Your task to perform on an android device: toggle wifi Image 0: 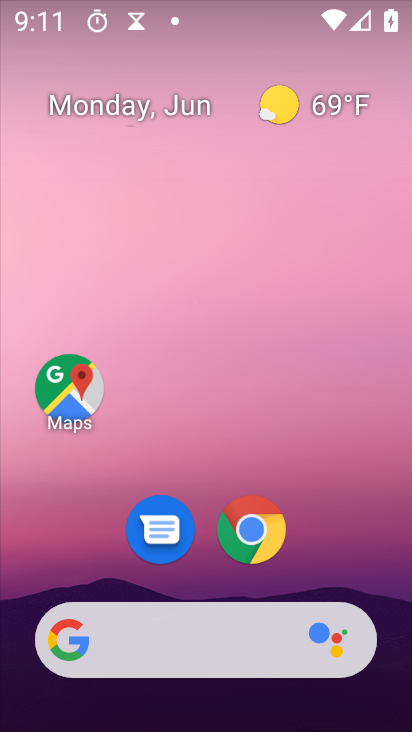
Step 0: drag from (350, 513) to (223, 68)
Your task to perform on an android device: toggle wifi Image 1: 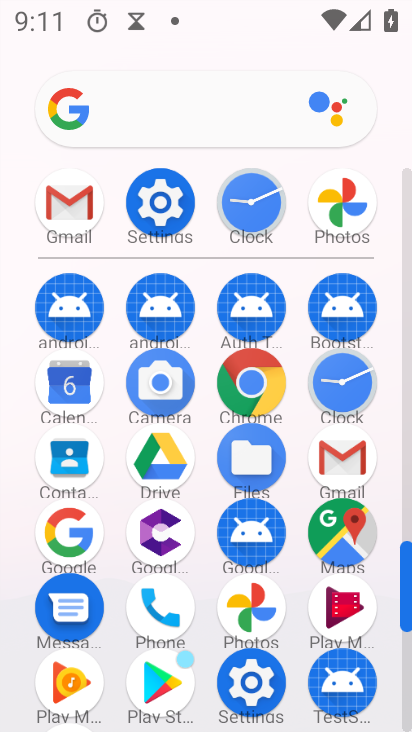
Step 1: click (148, 206)
Your task to perform on an android device: toggle wifi Image 2: 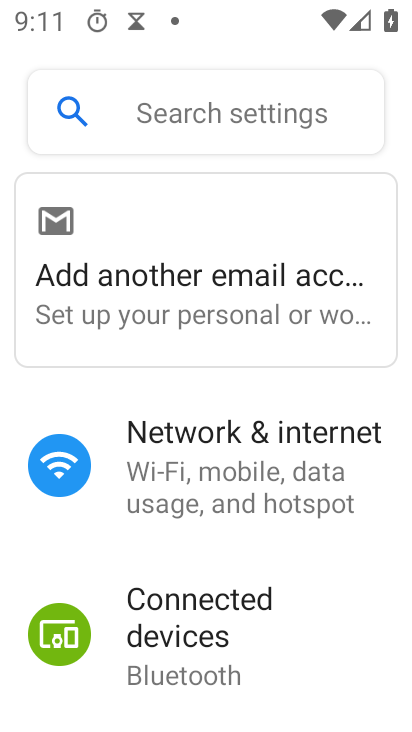
Step 2: click (219, 457)
Your task to perform on an android device: toggle wifi Image 3: 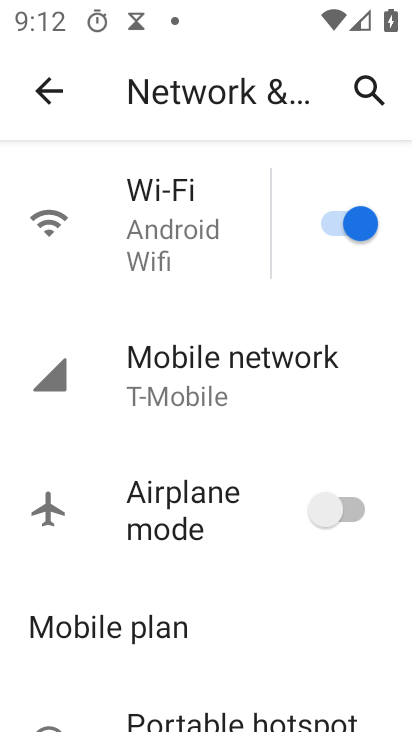
Step 3: click (215, 185)
Your task to perform on an android device: toggle wifi Image 4: 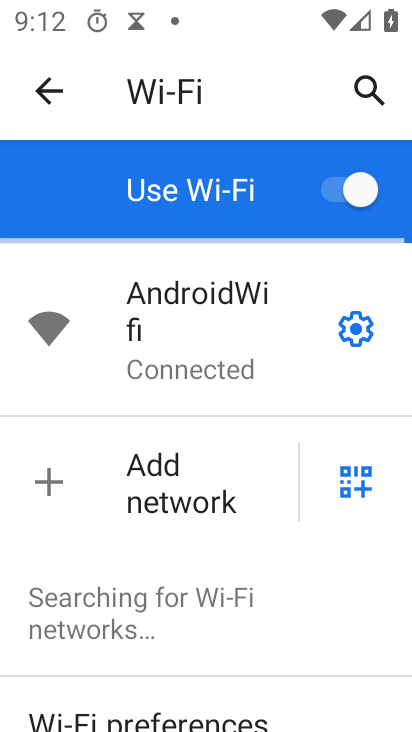
Step 4: click (343, 183)
Your task to perform on an android device: toggle wifi Image 5: 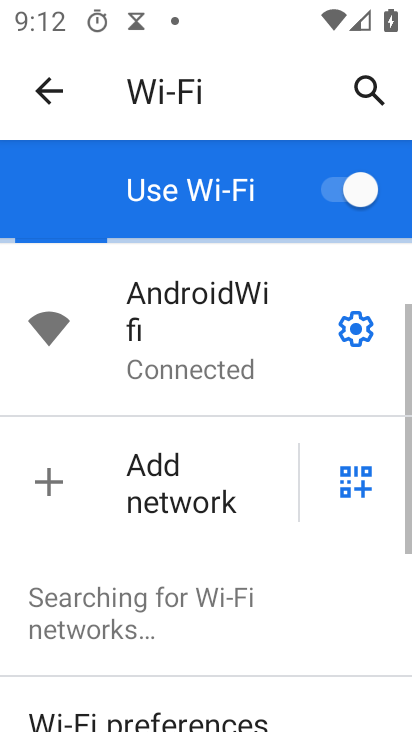
Step 5: click (343, 183)
Your task to perform on an android device: toggle wifi Image 6: 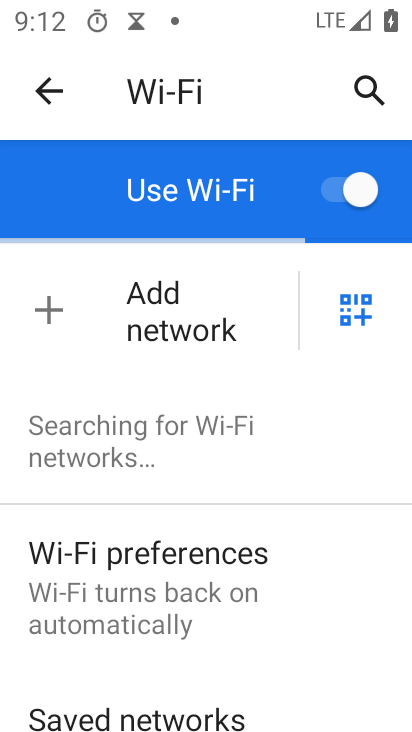
Step 6: click (283, 185)
Your task to perform on an android device: toggle wifi Image 7: 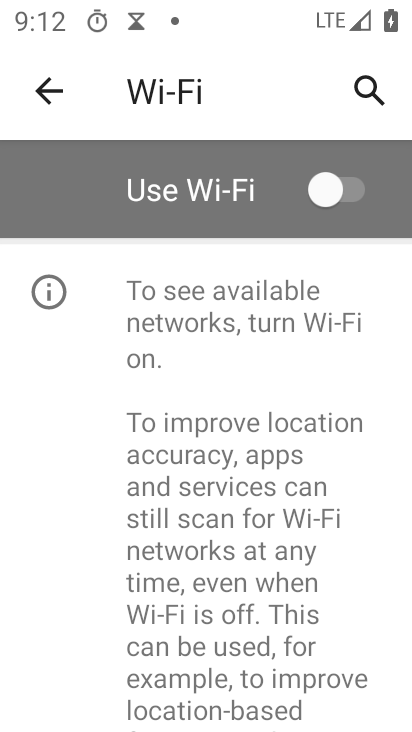
Step 7: task complete